Your task to perform on an android device: Search for flights from NYC to San Francisco Image 0: 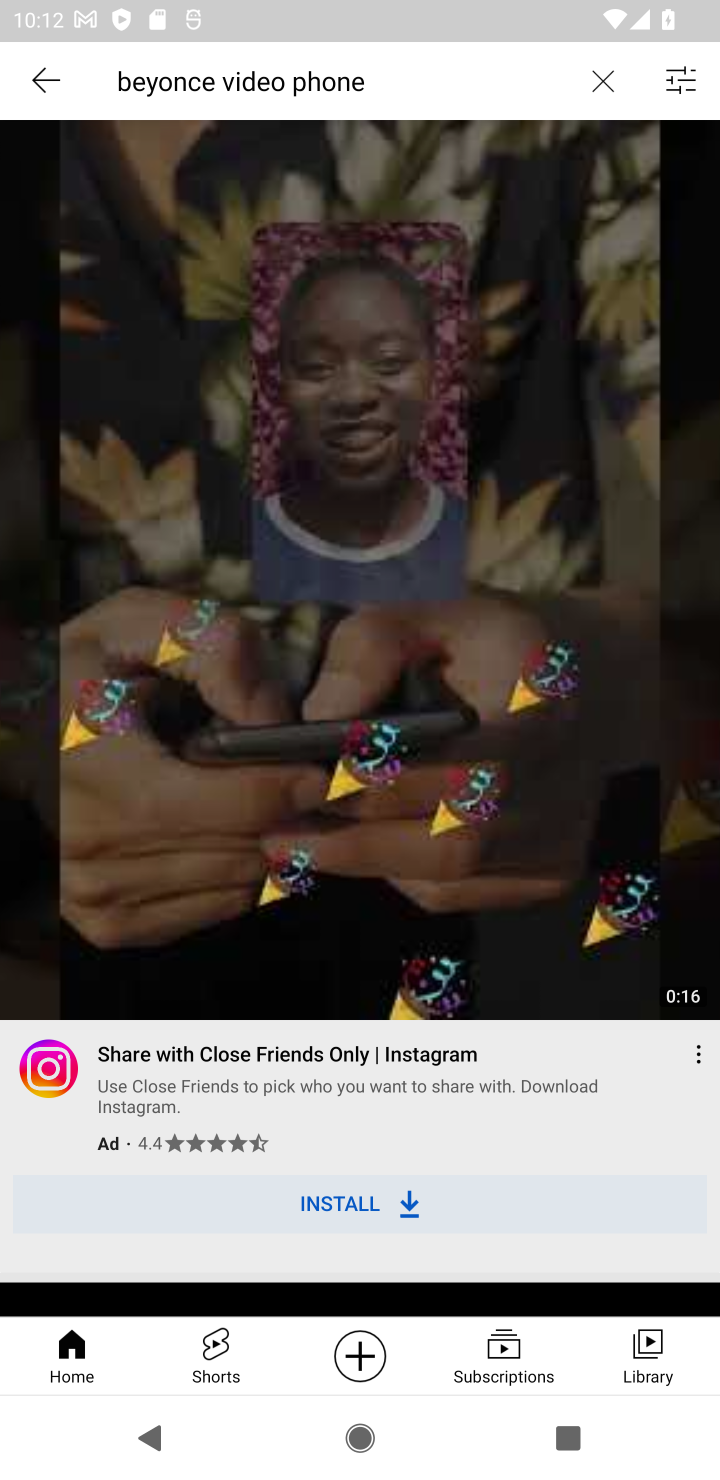
Step 0: task complete